Your task to perform on an android device: read, delete, or share a saved page in the chrome app Image 0: 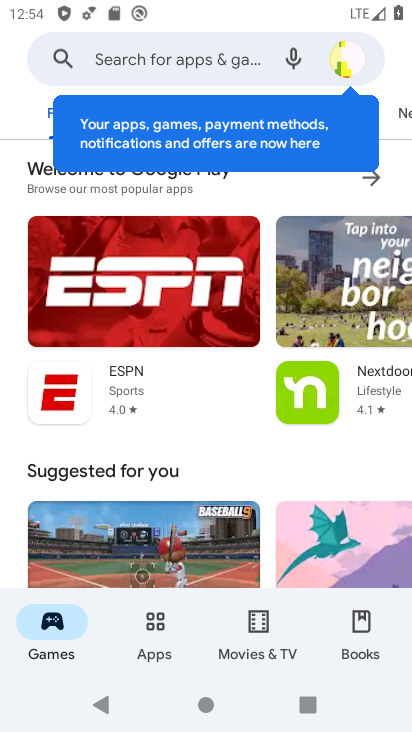
Step 0: click (256, 56)
Your task to perform on an android device: read, delete, or share a saved page in the chrome app Image 1: 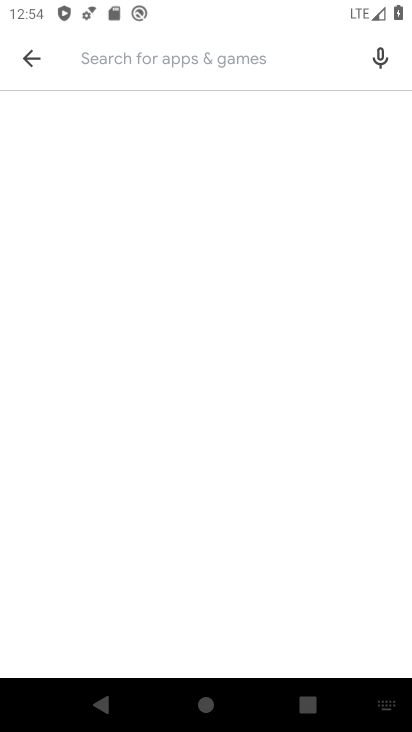
Step 1: press home button
Your task to perform on an android device: read, delete, or share a saved page in the chrome app Image 2: 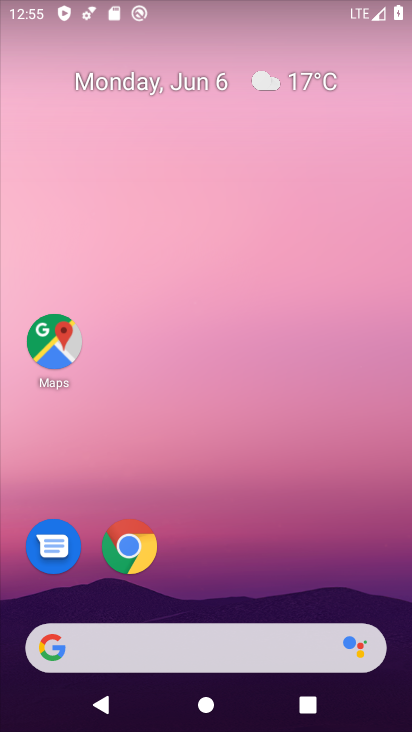
Step 2: click (133, 545)
Your task to perform on an android device: read, delete, or share a saved page in the chrome app Image 3: 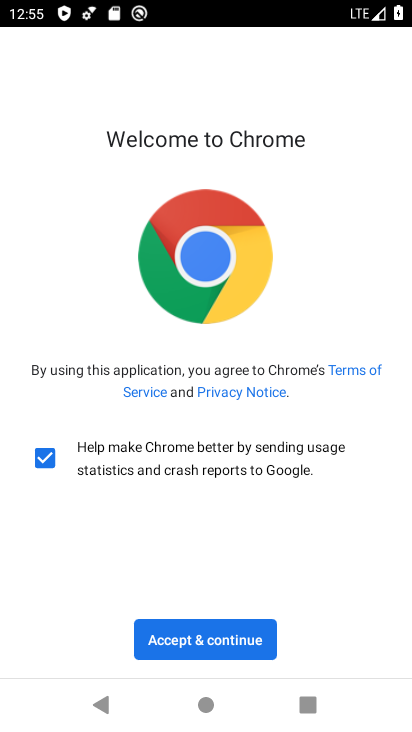
Step 3: click (180, 634)
Your task to perform on an android device: read, delete, or share a saved page in the chrome app Image 4: 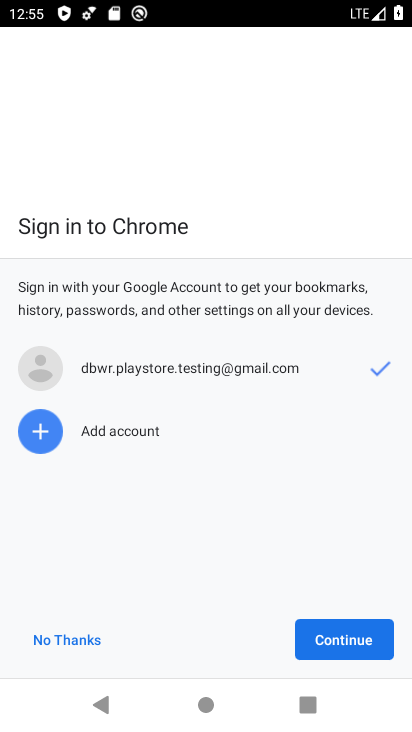
Step 4: click (366, 631)
Your task to perform on an android device: read, delete, or share a saved page in the chrome app Image 5: 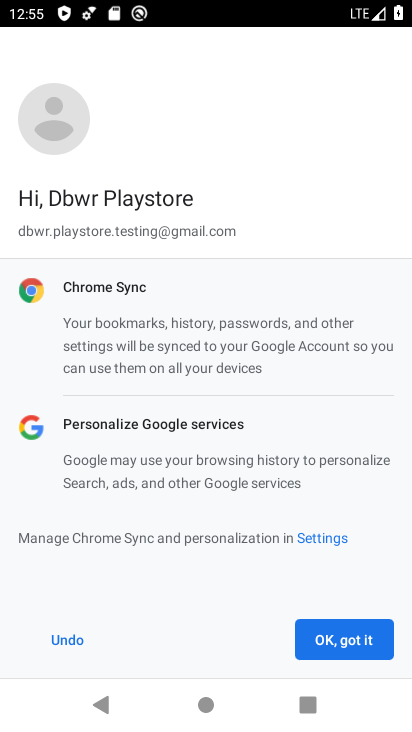
Step 5: click (366, 631)
Your task to perform on an android device: read, delete, or share a saved page in the chrome app Image 6: 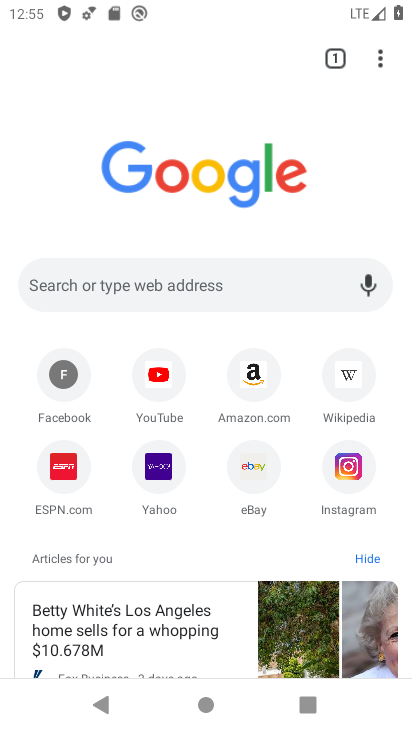
Step 6: click (382, 62)
Your task to perform on an android device: read, delete, or share a saved page in the chrome app Image 7: 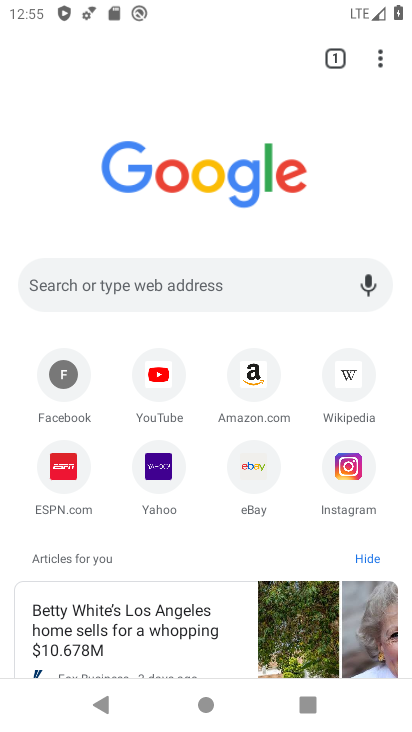
Step 7: click (378, 50)
Your task to perform on an android device: read, delete, or share a saved page in the chrome app Image 8: 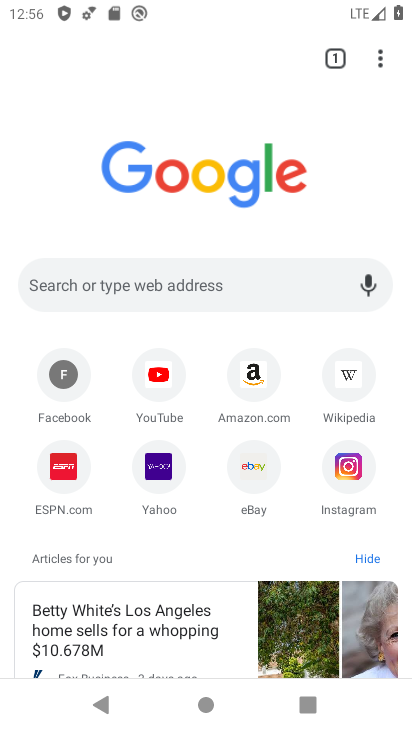
Step 8: click (378, 53)
Your task to perform on an android device: read, delete, or share a saved page in the chrome app Image 9: 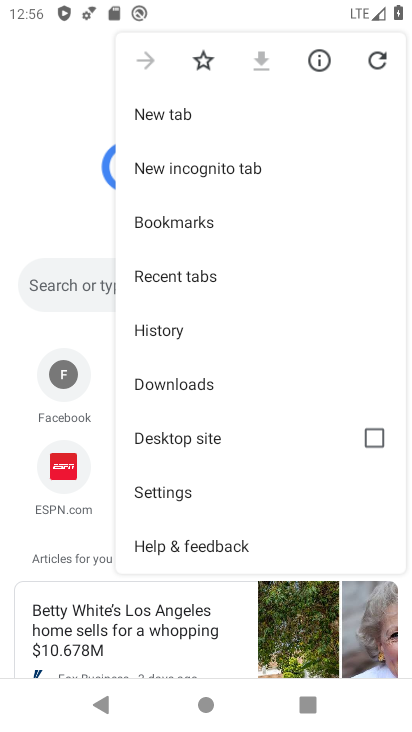
Step 9: click (153, 388)
Your task to perform on an android device: read, delete, or share a saved page in the chrome app Image 10: 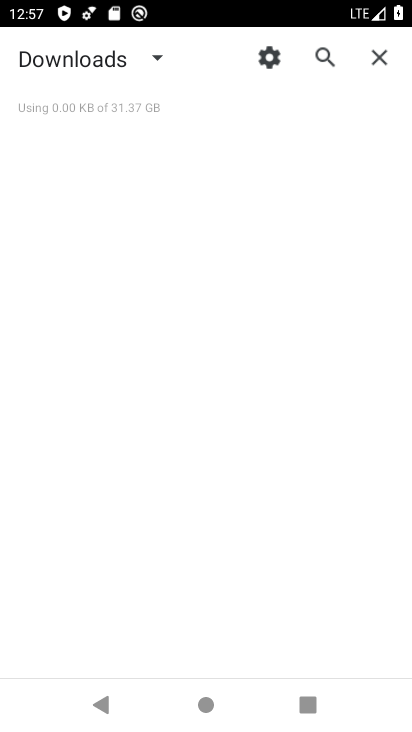
Step 10: task complete